Your task to perform on an android device: Open the calendar and show me this week's events? Image 0: 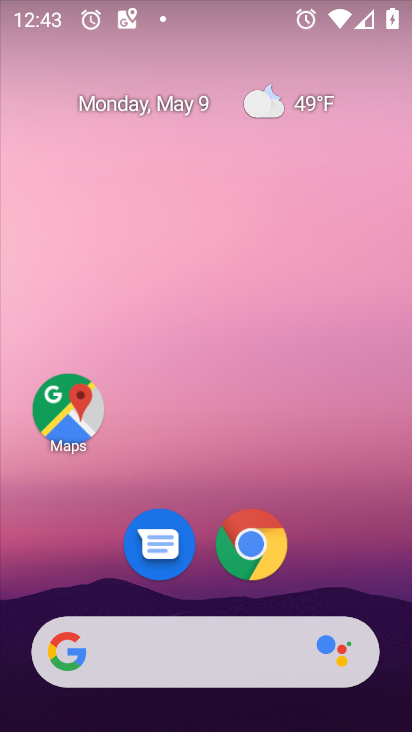
Step 0: drag from (214, 663) to (231, 92)
Your task to perform on an android device: Open the calendar and show me this week's events? Image 1: 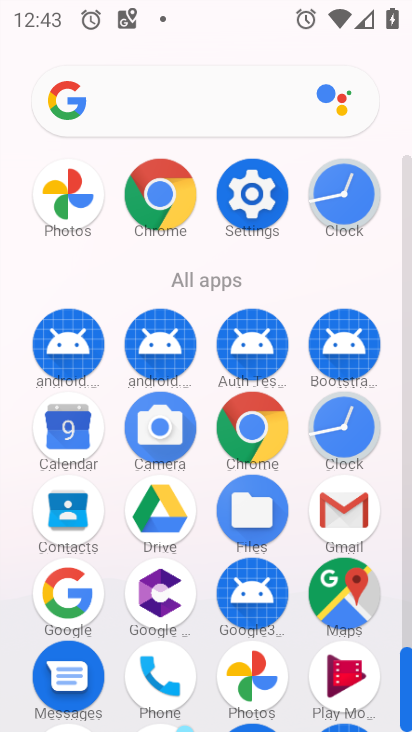
Step 1: click (68, 435)
Your task to perform on an android device: Open the calendar and show me this week's events? Image 2: 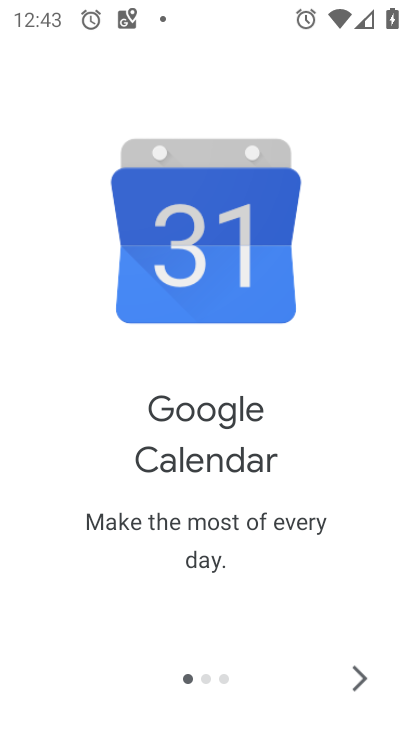
Step 2: click (351, 690)
Your task to perform on an android device: Open the calendar and show me this week's events? Image 3: 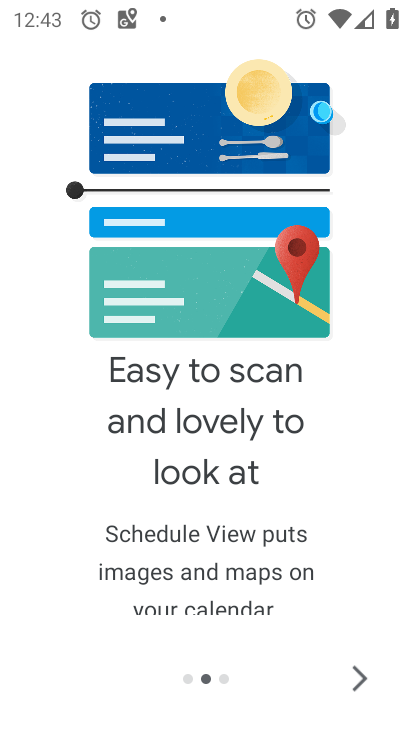
Step 3: click (351, 690)
Your task to perform on an android device: Open the calendar and show me this week's events? Image 4: 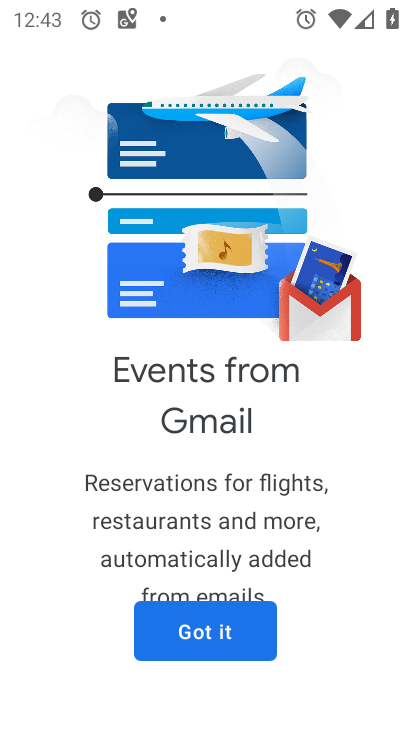
Step 4: click (242, 647)
Your task to perform on an android device: Open the calendar and show me this week's events? Image 5: 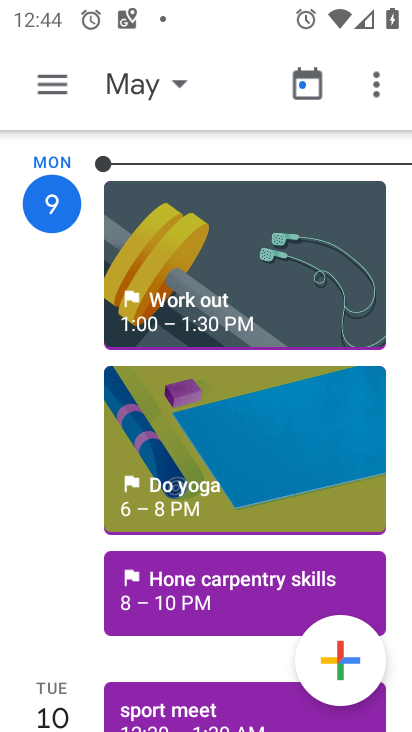
Step 5: click (49, 89)
Your task to perform on an android device: Open the calendar and show me this week's events? Image 6: 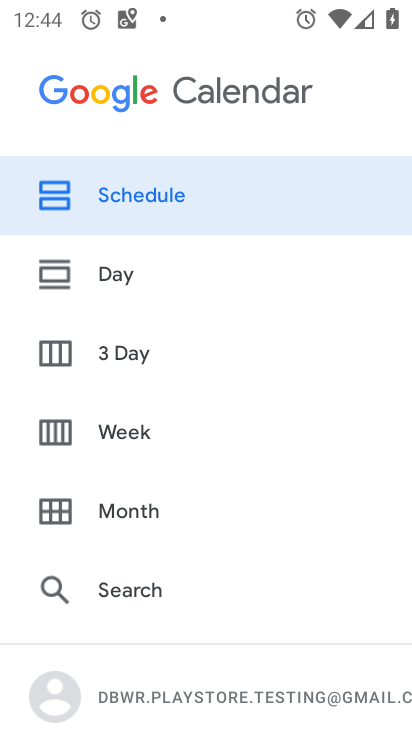
Step 6: click (118, 445)
Your task to perform on an android device: Open the calendar and show me this week's events? Image 7: 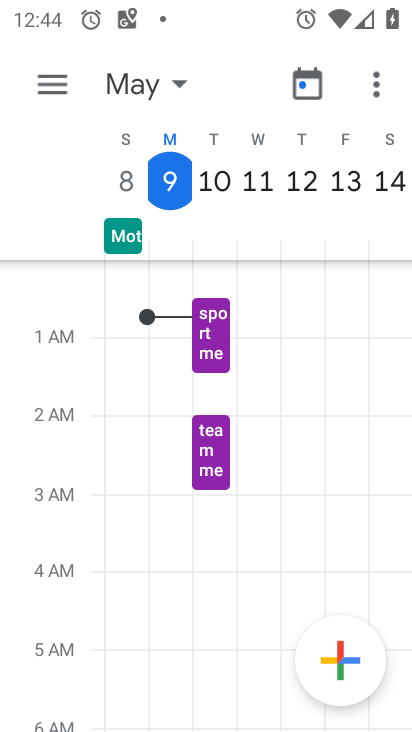
Step 7: task complete